Your task to perform on an android device: Go to Yahoo.com Image 0: 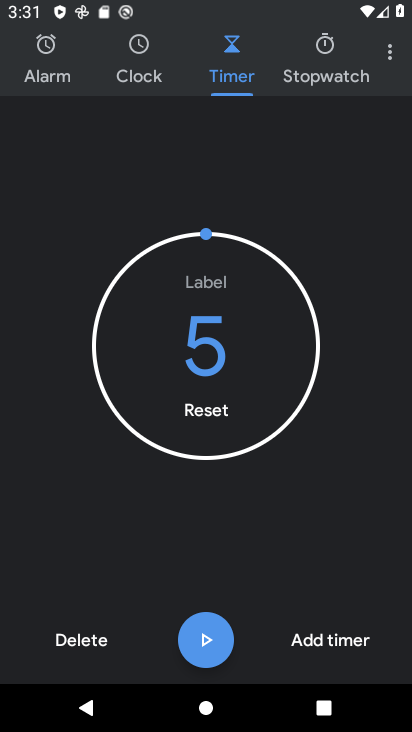
Step 0: press home button
Your task to perform on an android device: Go to Yahoo.com Image 1: 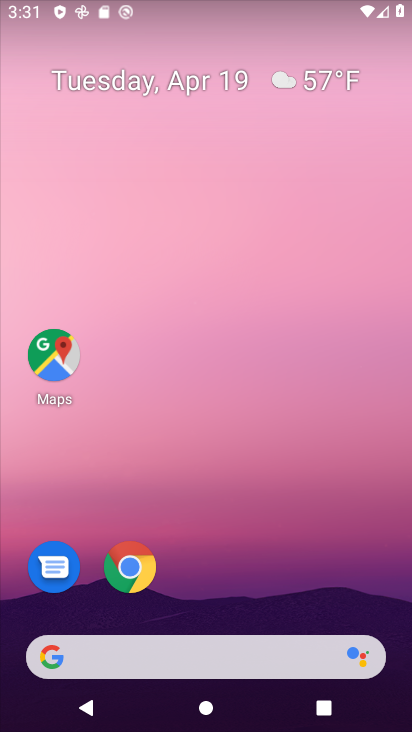
Step 1: drag from (373, 582) to (359, 139)
Your task to perform on an android device: Go to Yahoo.com Image 2: 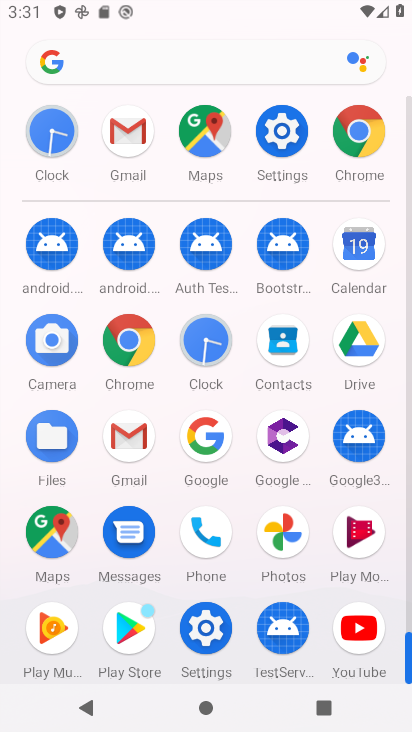
Step 2: click (123, 334)
Your task to perform on an android device: Go to Yahoo.com Image 3: 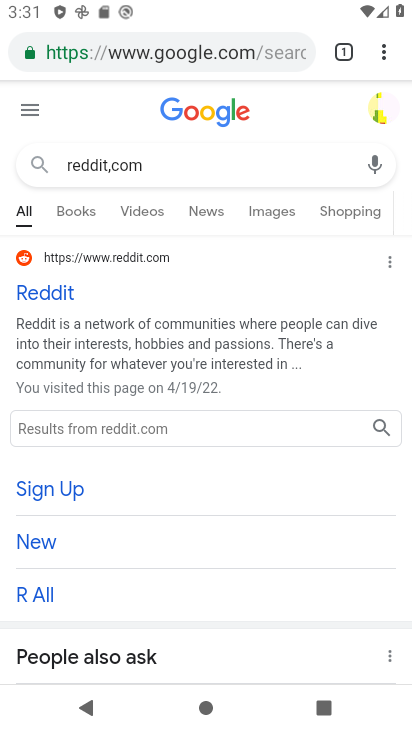
Step 3: click (166, 163)
Your task to perform on an android device: Go to Yahoo.com Image 4: 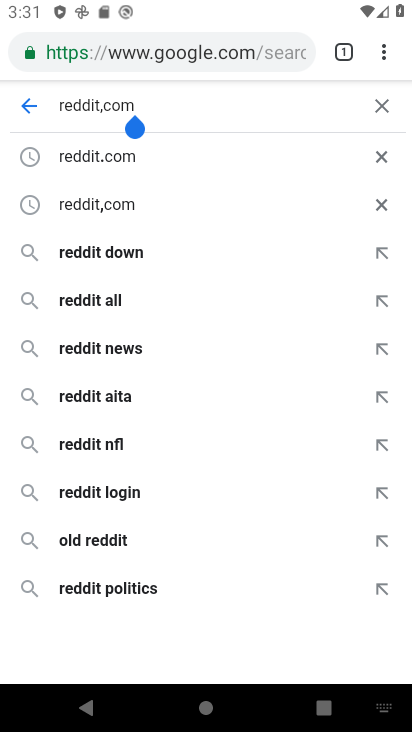
Step 4: click (382, 105)
Your task to perform on an android device: Go to Yahoo.com Image 5: 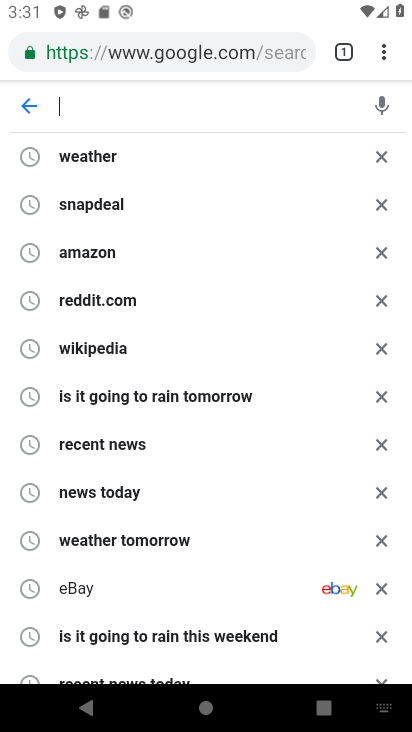
Step 5: type "yahoo,com"
Your task to perform on an android device: Go to Yahoo.com Image 6: 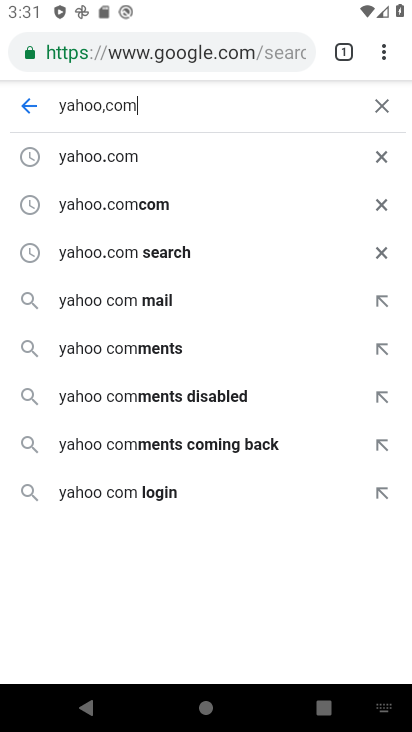
Step 6: click (144, 157)
Your task to perform on an android device: Go to Yahoo.com Image 7: 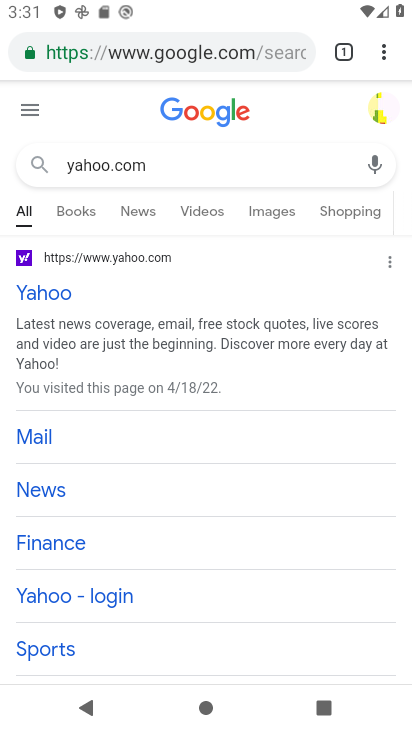
Step 7: click (40, 294)
Your task to perform on an android device: Go to Yahoo.com Image 8: 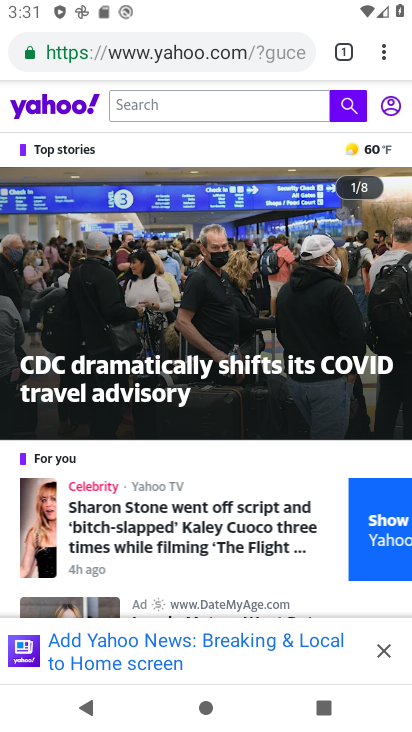
Step 8: task complete